Your task to perform on an android device: add a contact in the contacts app Image 0: 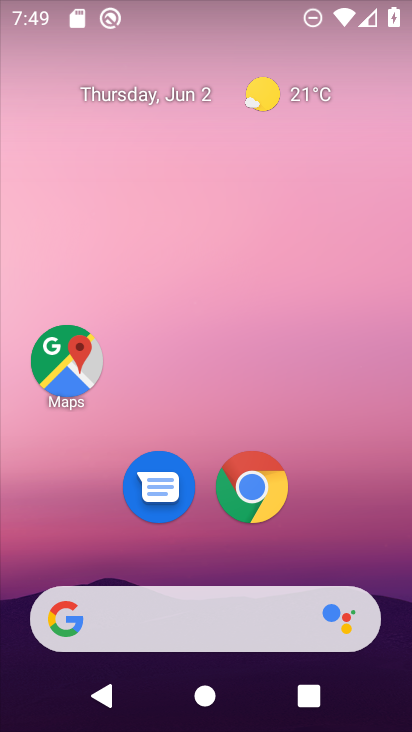
Step 0: drag from (248, 439) to (249, 196)
Your task to perform on an android device: add a contact in the contacts app Image 1: 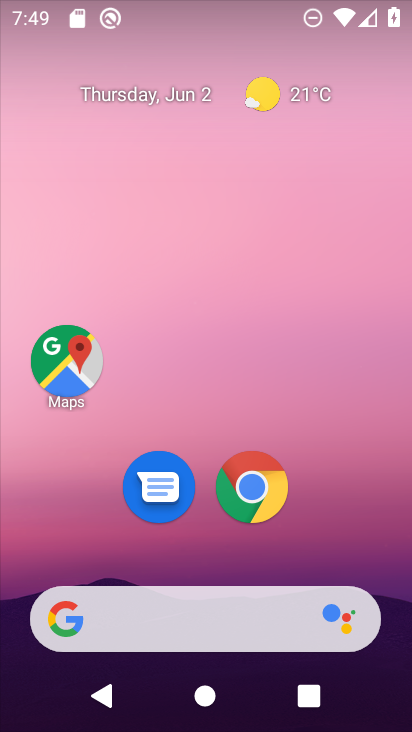
Step 1: drag from (200, 439) to (241, 79)
Your task to perform on an android device: add a contact in the contacts app Image 2: 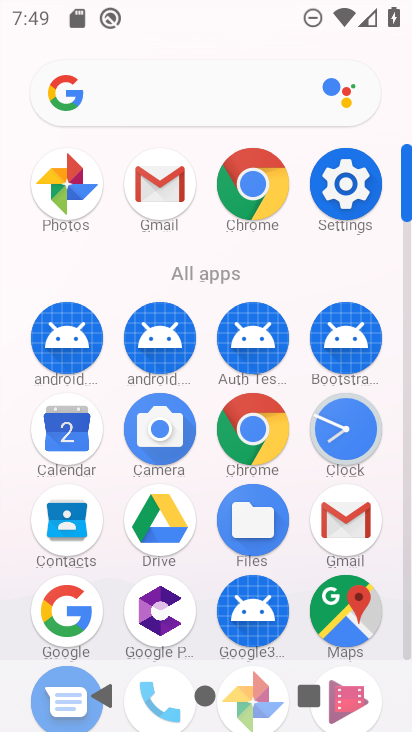
Step 2: click (69, 520)
Your task to perform on an android device: add a contact in the contacts app Image 3: 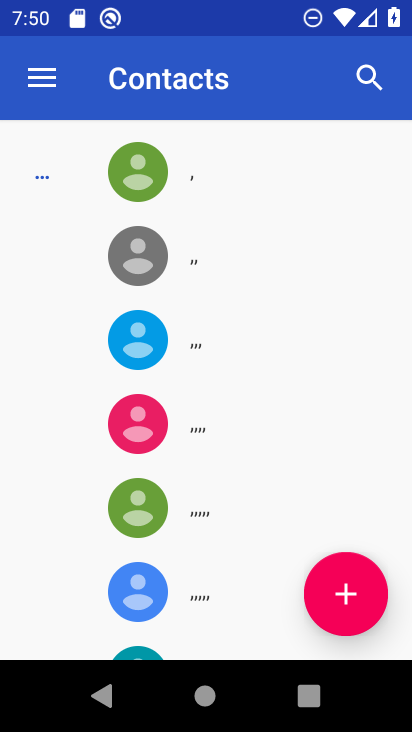
Step 3: click (352, 596)
Your task to perform on an android device: add a contact in the contacts app Image 4: 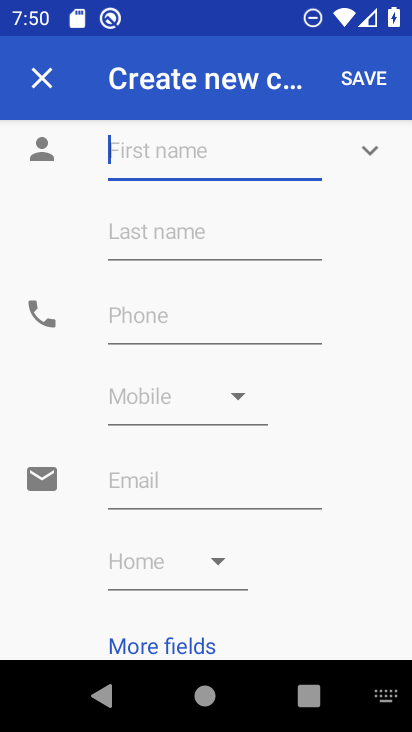
Step 4: type "hyjh"
Your task to perform on an android device: add a contact in the contacts app Image 5: 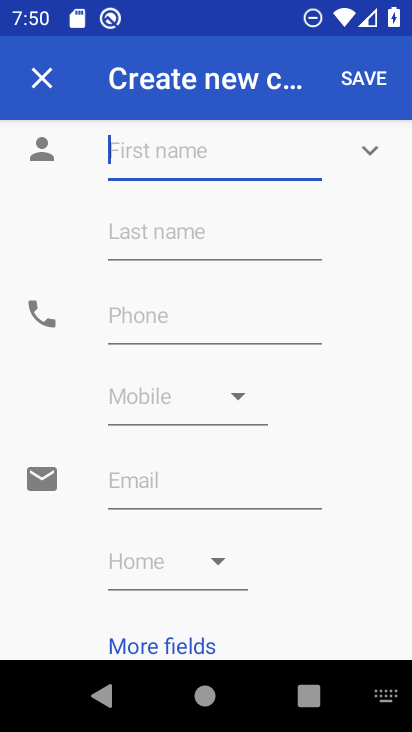
Step 5: click (104, 235)
Your task to perform on an android device: add a contact in the contacts app Image 6: 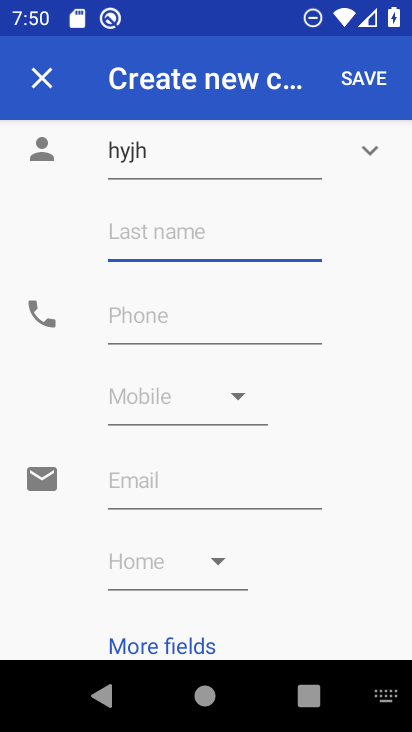
Step 6: type "vv"
Your task to perform on an android device: add a contact in the contacts app Image 7: 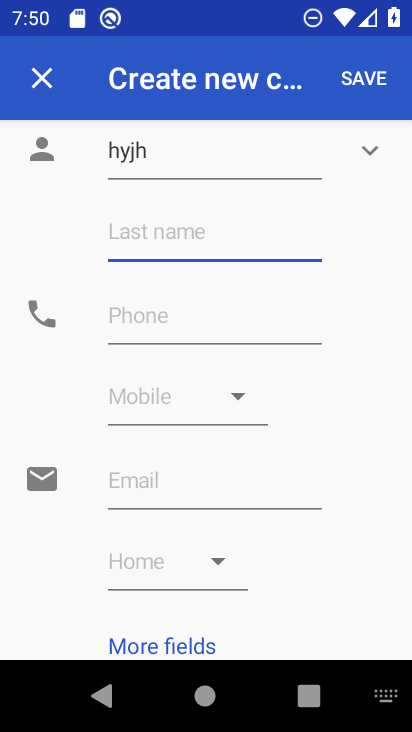
Step 7: click (147, 325)
Your task to perform on an android device: add a contact in the contacts app Image 8: 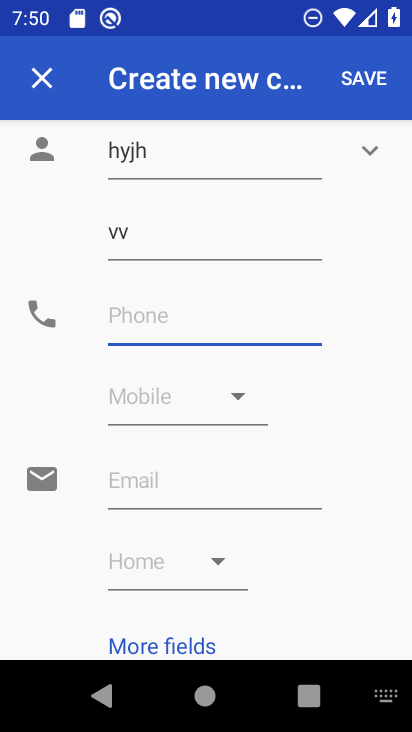
Step 8: type "547868798"
Your task to perform on an android device: add a contact in the contacts app Image 9: 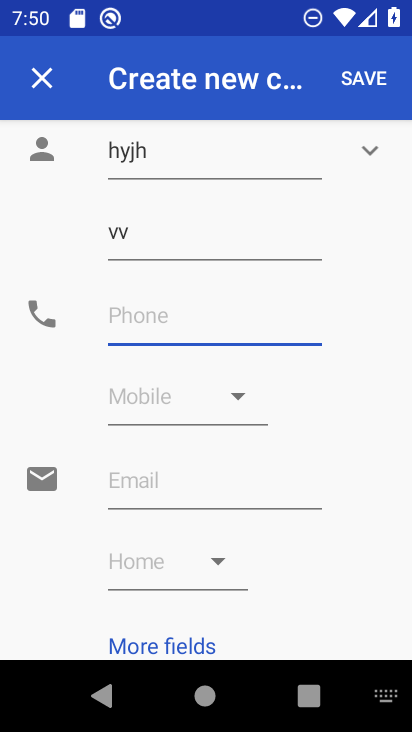
Step 9: click (366, 59)
Your task to perform on an android device: add a contact in the contacts app Image 10: 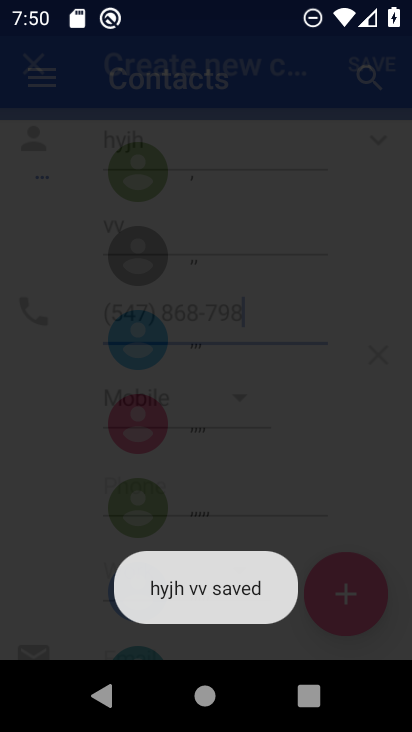
Step 10: click (359, 92)
Your task to perform on an android device: add a contact in the contacts app Image 11: 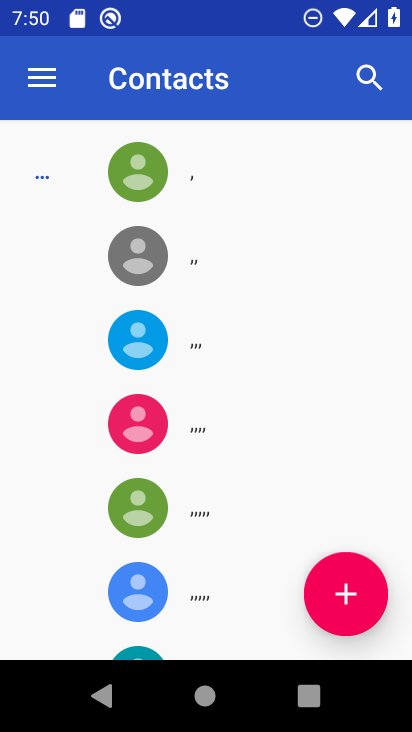
Step 11: task complete